Your task to perform on an android device: Add "bose soundsport free" to the cart on bestbuy, then select checkout. Image 0: 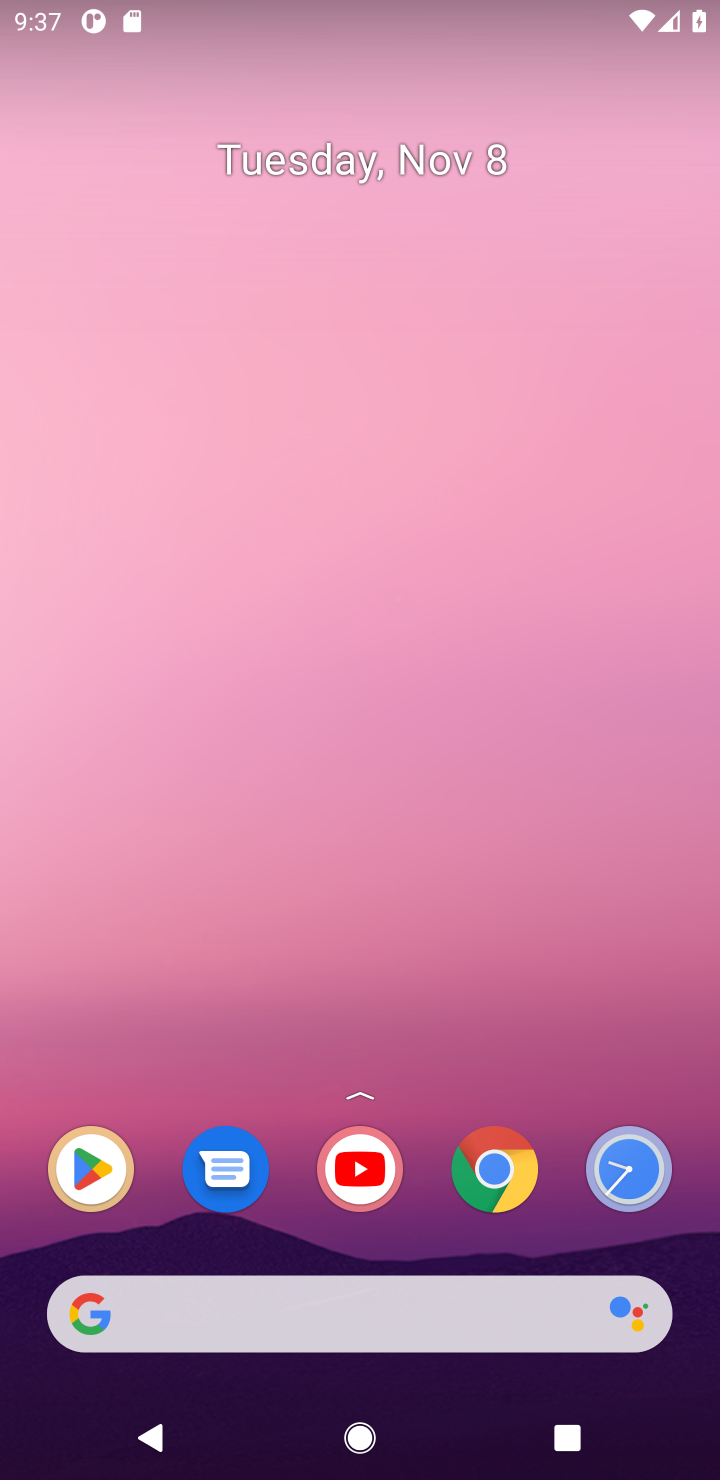
Step 0: click (499, 1153)
Your task to perform on an android device: Add "bose soundsport free" to the cart on bestbuy, then select checkout. Image 1: 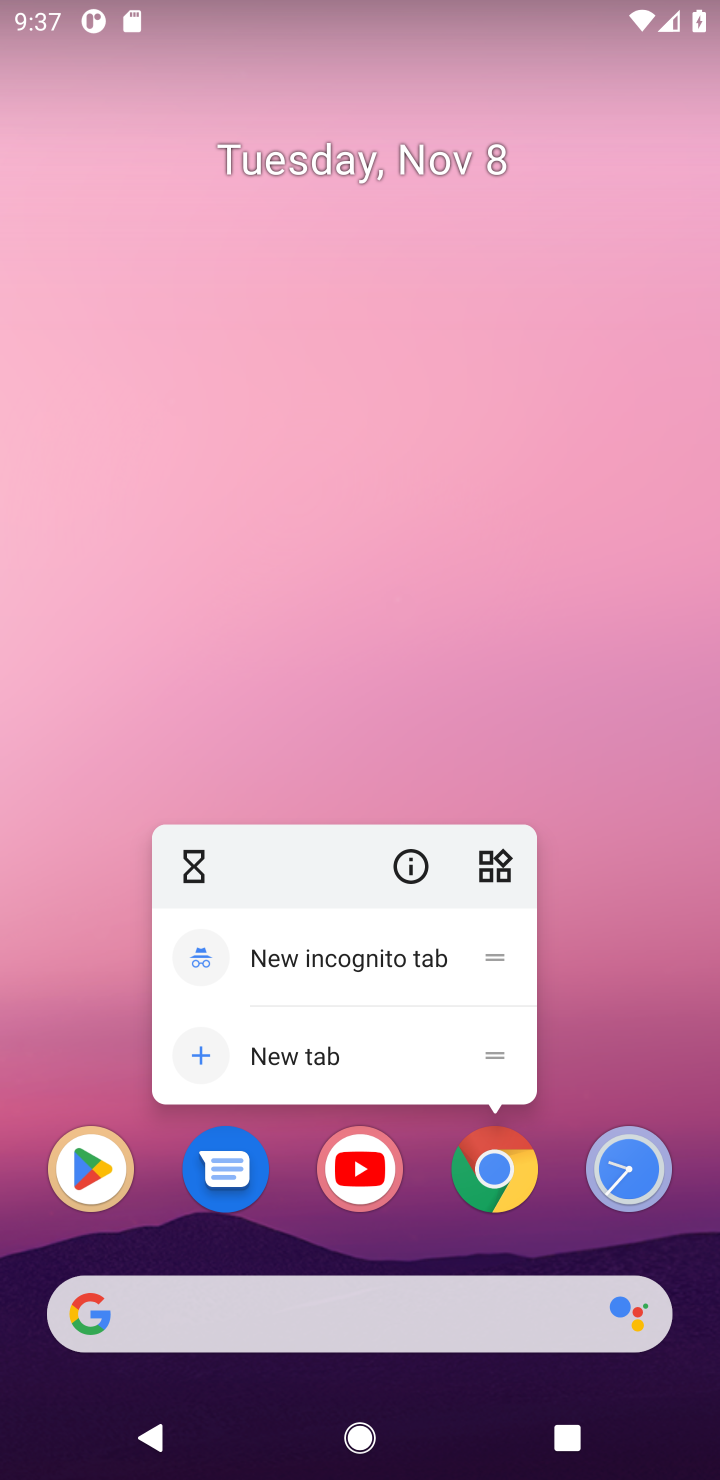
Step 1: click (499, 1153)
Your task to perform on an android device: Add "bose soundsport free" to the cart on bestbuy, then select checkout. Image 2: 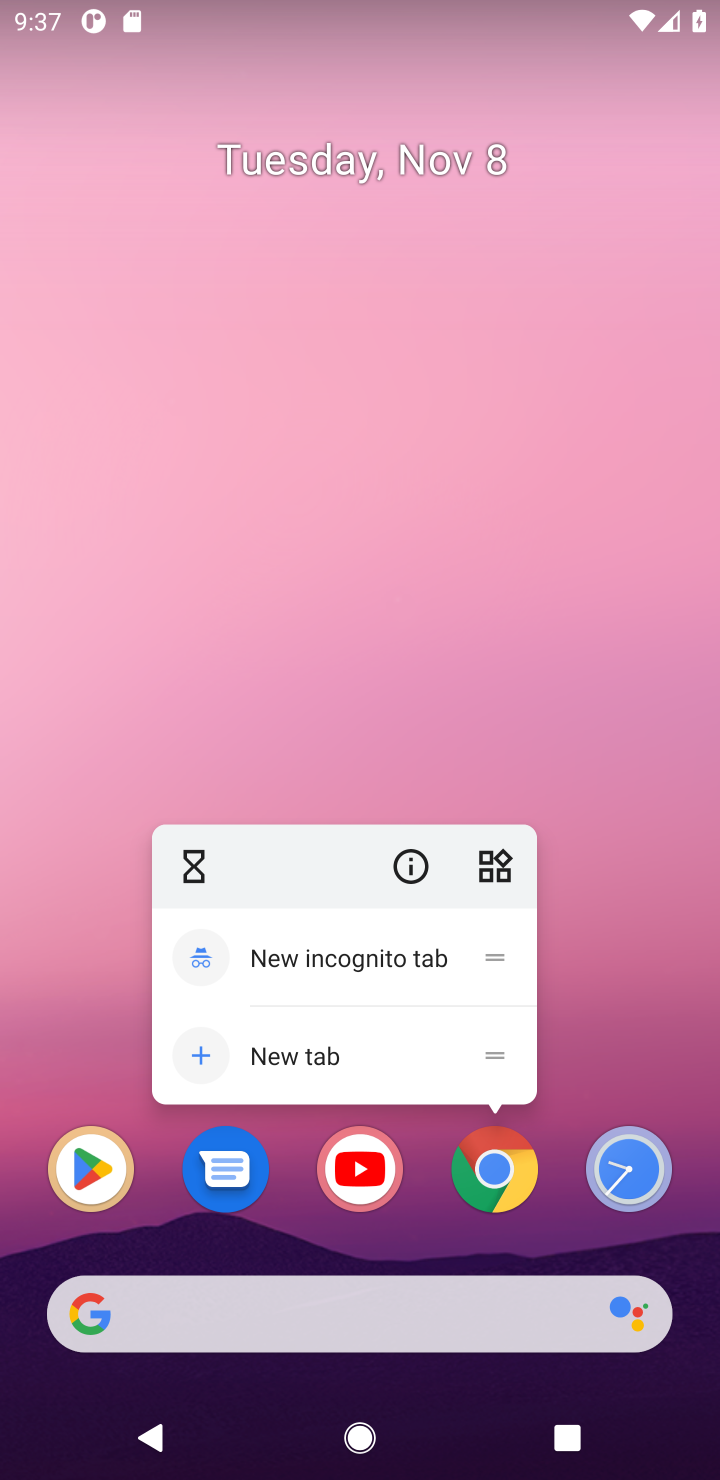
Step 2: click (499, 1153)
Your task to perform on an android device: Add "bose soundsport free" to the cart on bestbuy, then select checkout. Image 3: 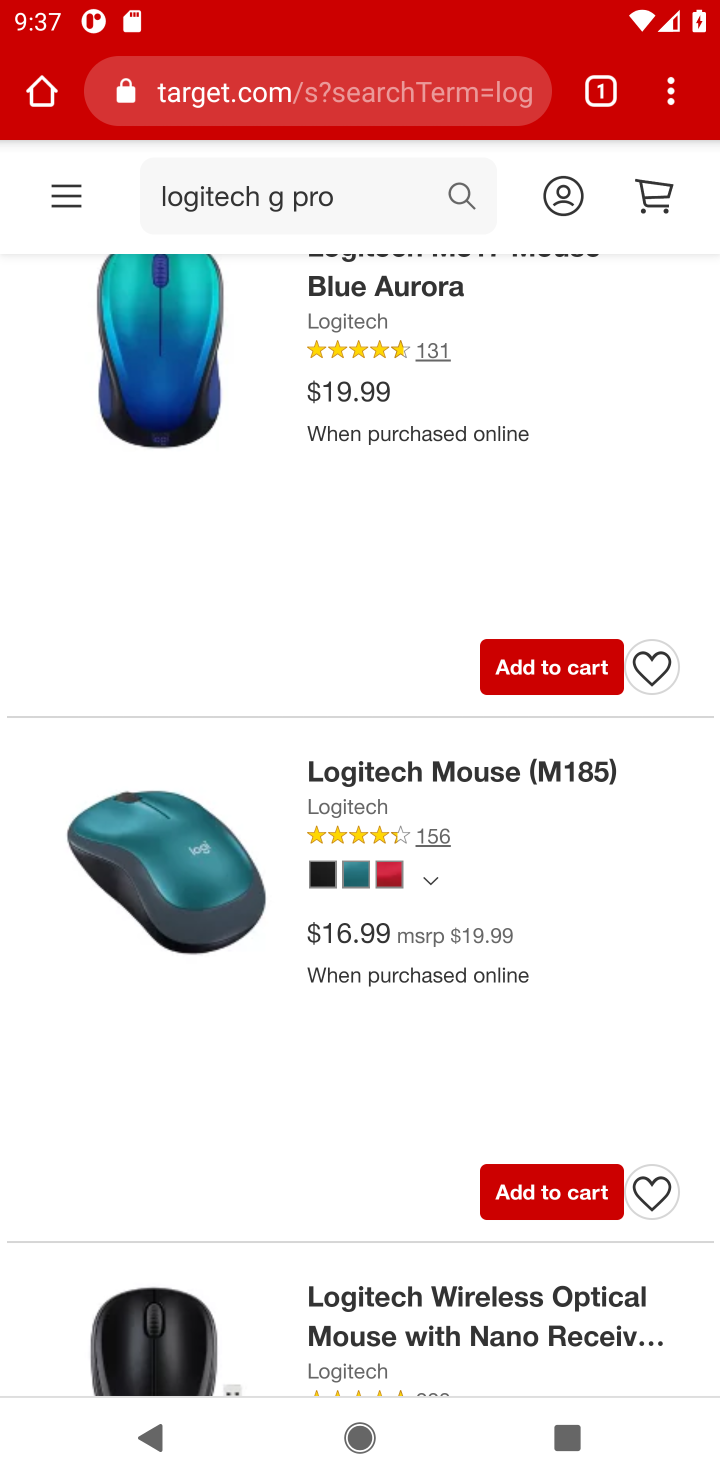
Step 3: click (396, 80)
Your task to perform on an android device: Add "bose soundsport free" to the cart on bestbuy, then select checkout. Image 4: 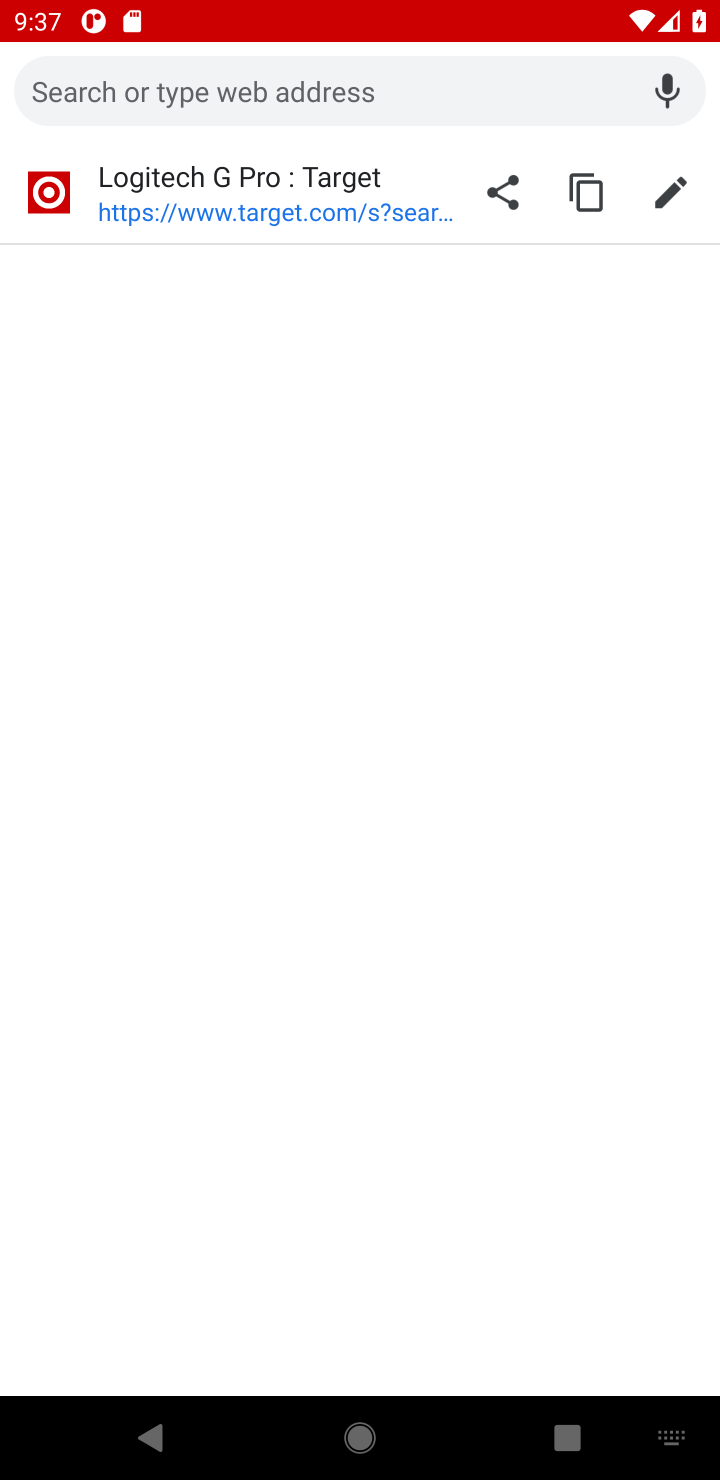
Step 4: press enter
Your task to perform on an android device: Add "bose soundsport free" to the cart on bestbuy, then select checkout. Image 5: 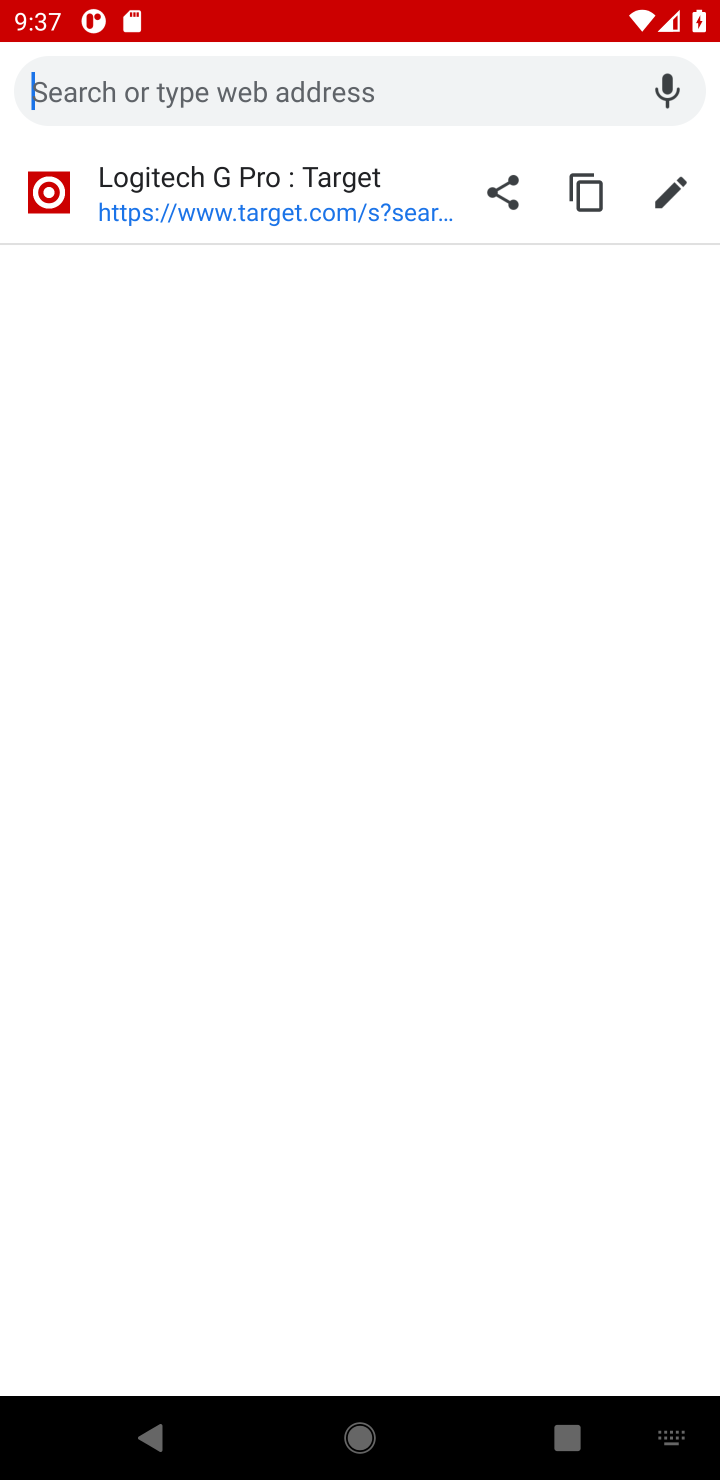
Step 5: type "bestbuy"
Your task to perform on an android device: Add "bose soundsport free" to the cart on bestbuy, then select checkout. Image 6: 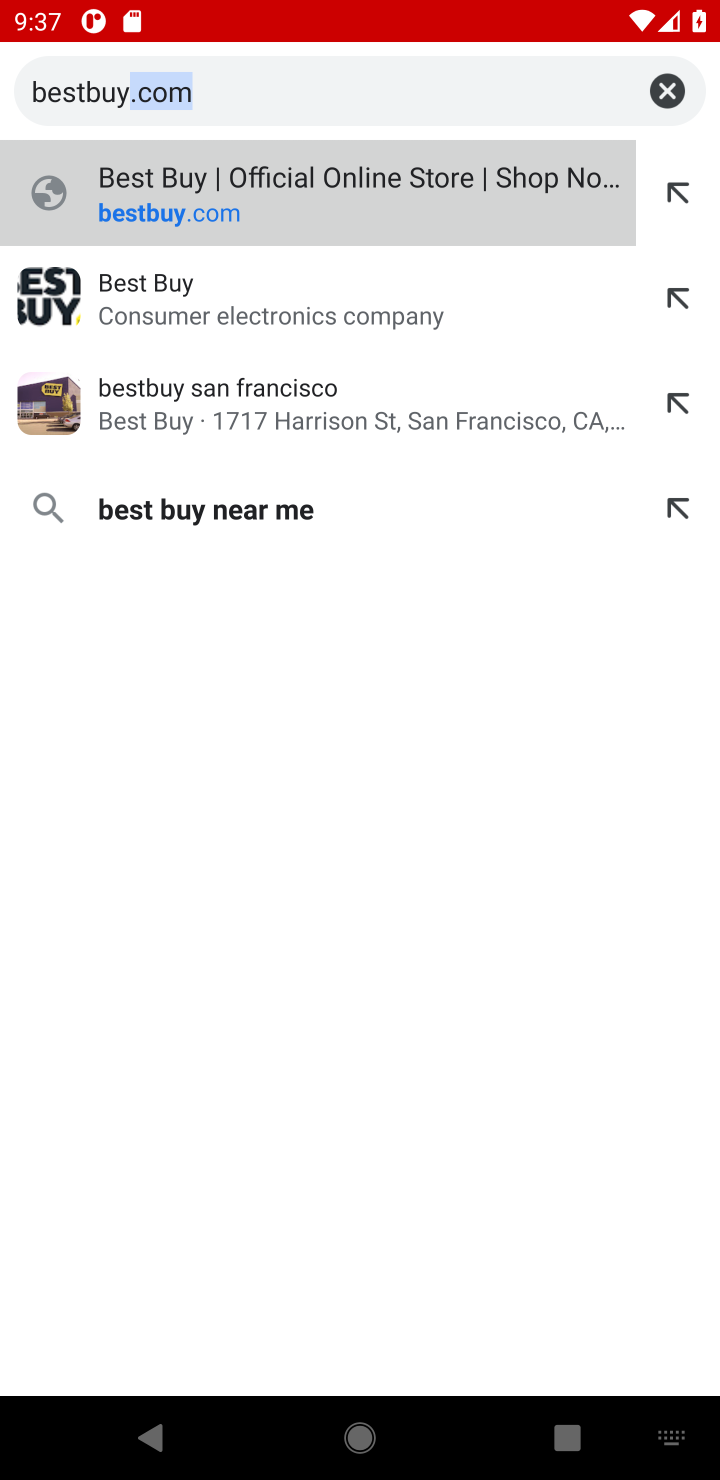
Step 6: click (498, 84)
Your task to perform on an android device: Add "bose soundsport free" to the cart on bestbuy, then select checkout. Image 7: 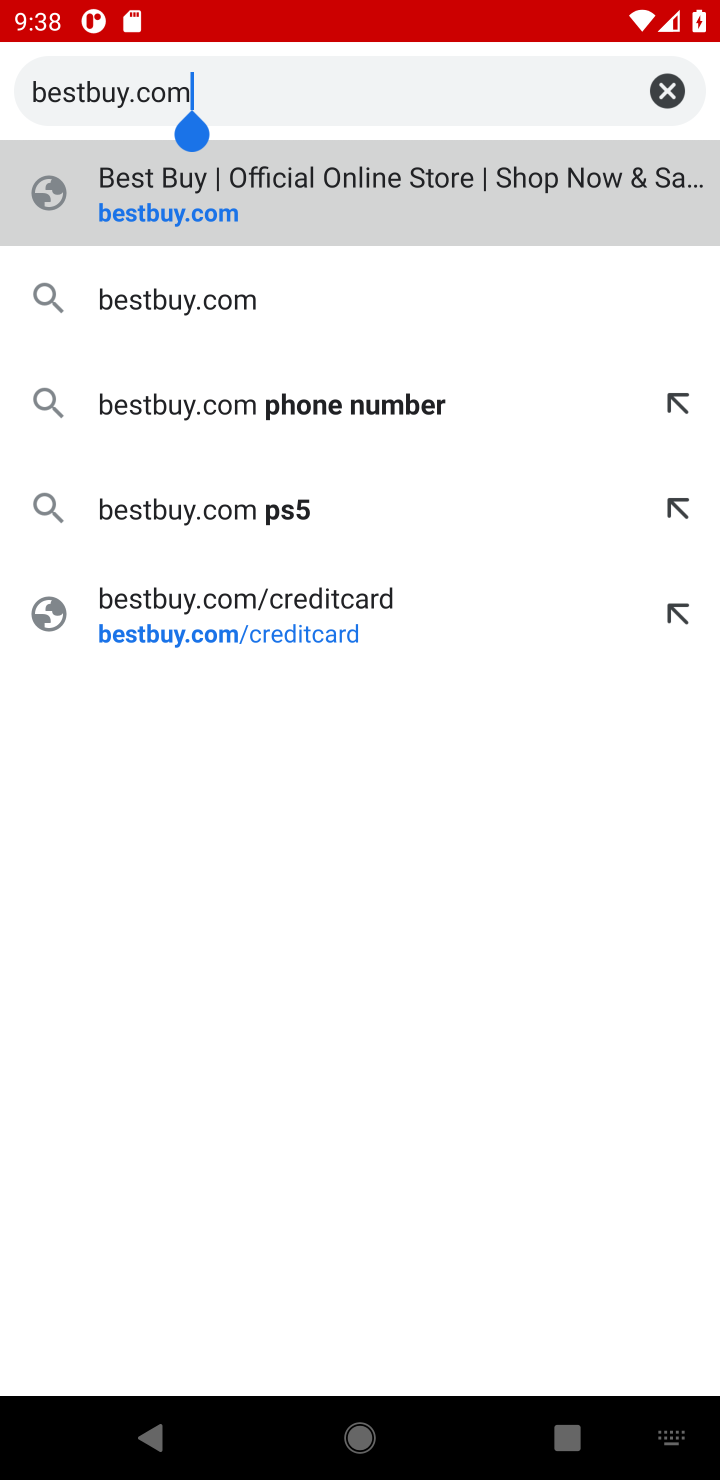
Step 7: click (179, 301)
Your task to perform on an android device: Add "bose soundsport free" to the cart on bestbuy, then select checkout. Image 8: 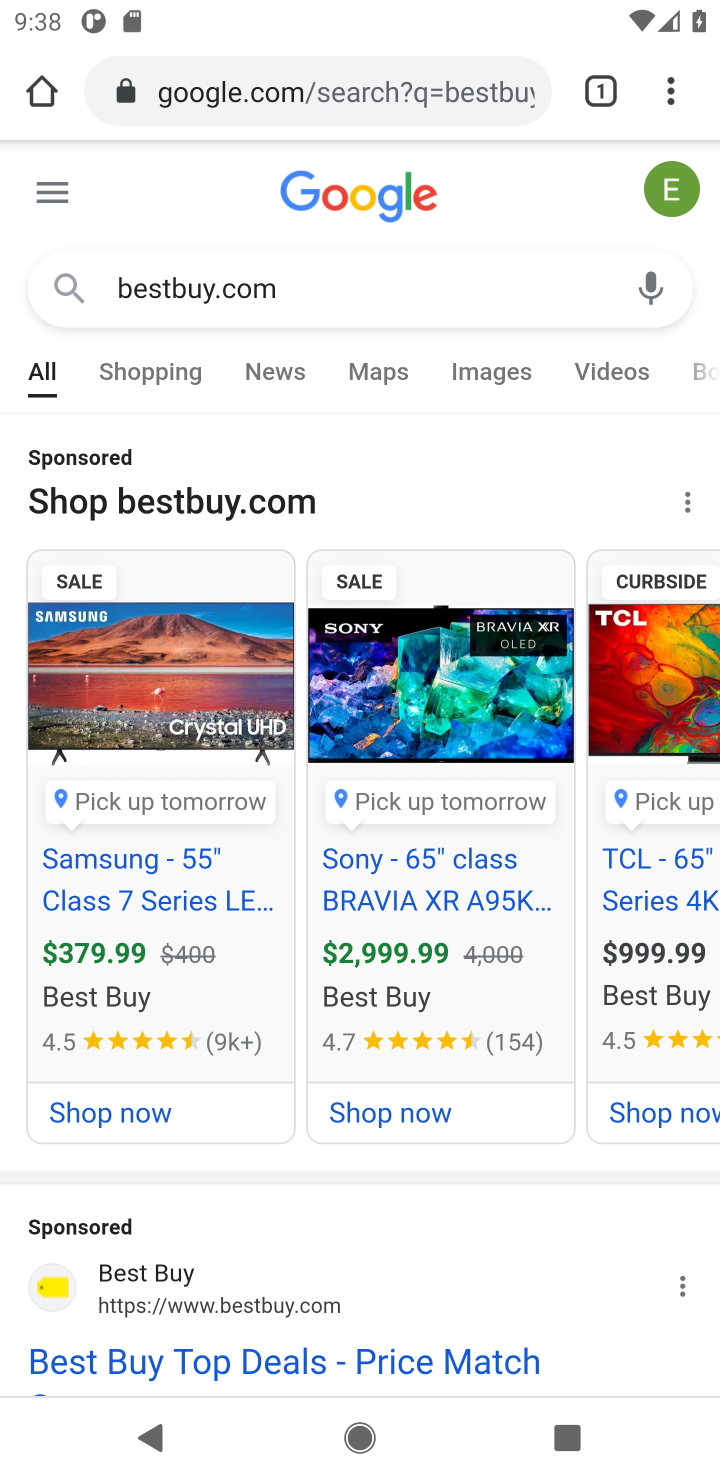
Step 8: click (298, 1308)
Your task to perform on an android device: Add "bose soundsport free" to the cart on bestbuy, then select checkout. Image 9: 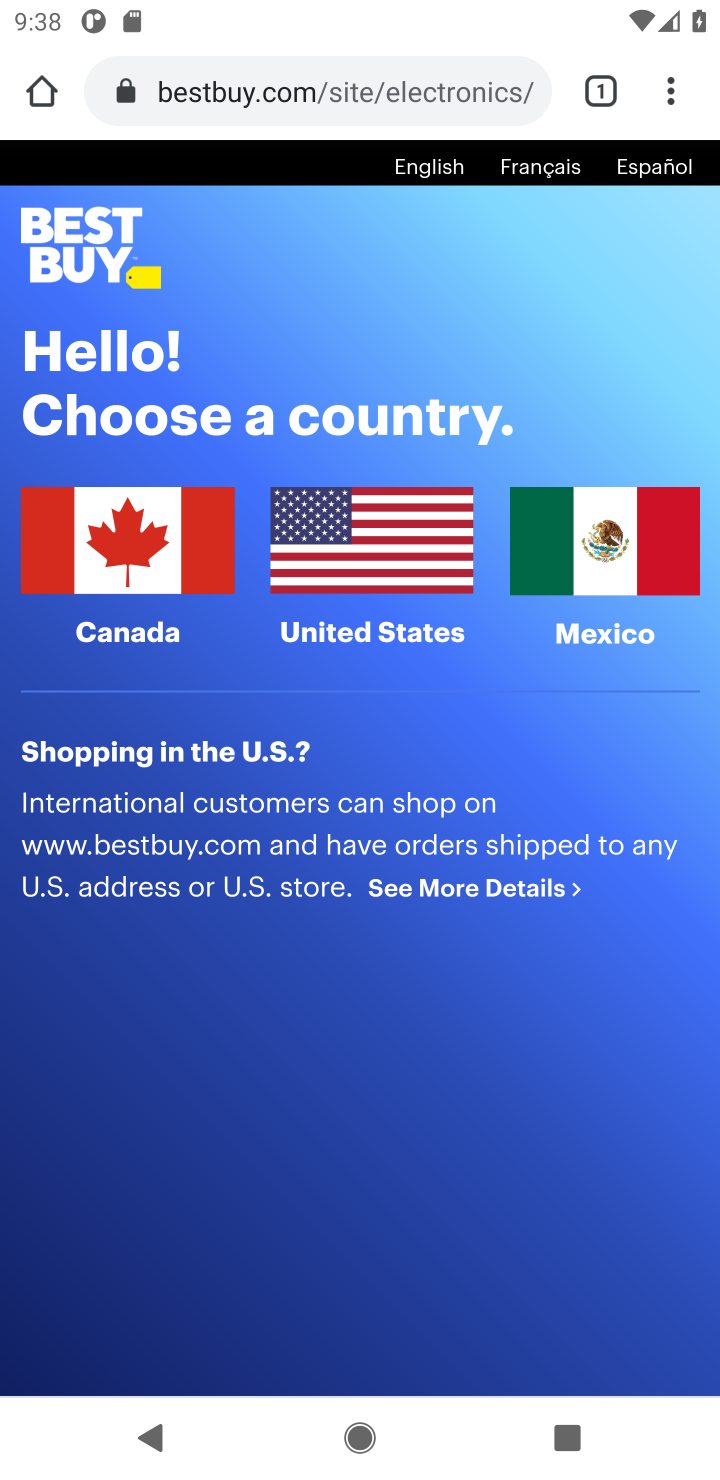
Step 9: click (374, 523)
Your task to perform on an android device: Add "bose soundsport free" to the cart on bestbuy, then select checkout. Image 10: 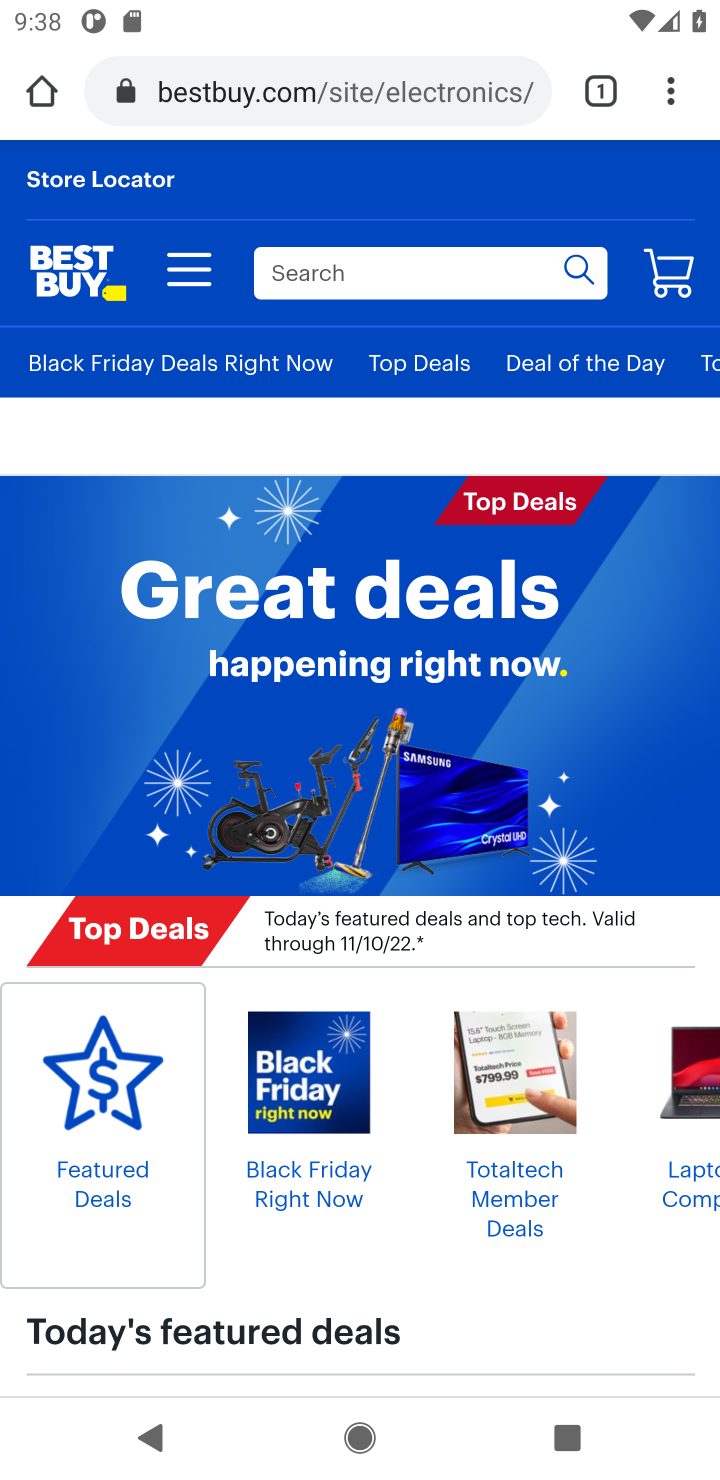
Step 10: click (467, 270)
Your task to perform on an android device: Add "bose soundsport free" to the cart on bestbuy, then select checkout. Image 11: 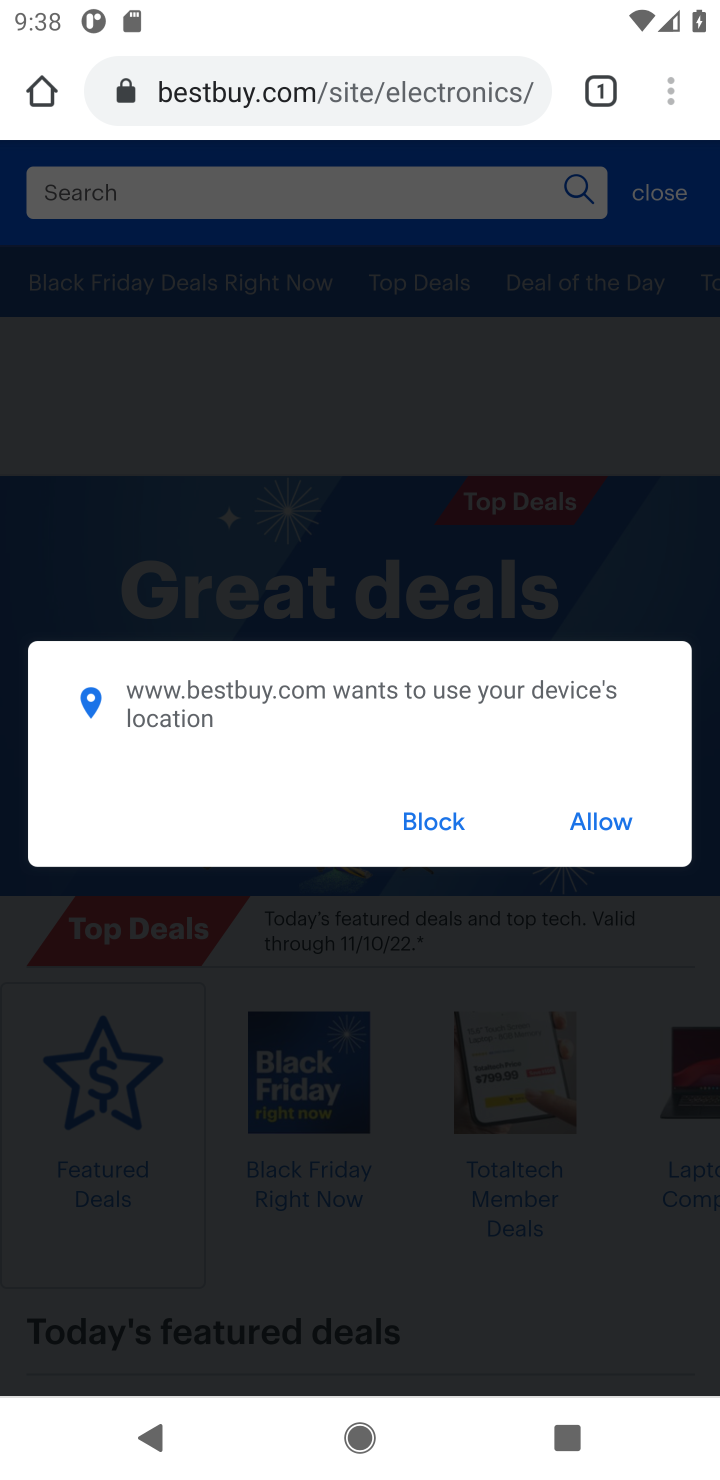
Step 11: type "bose soundsport free"
Your task to perform on an android device: Add "bose soundsport free" to the cart on bestbuy, then select checkout. Image 12: 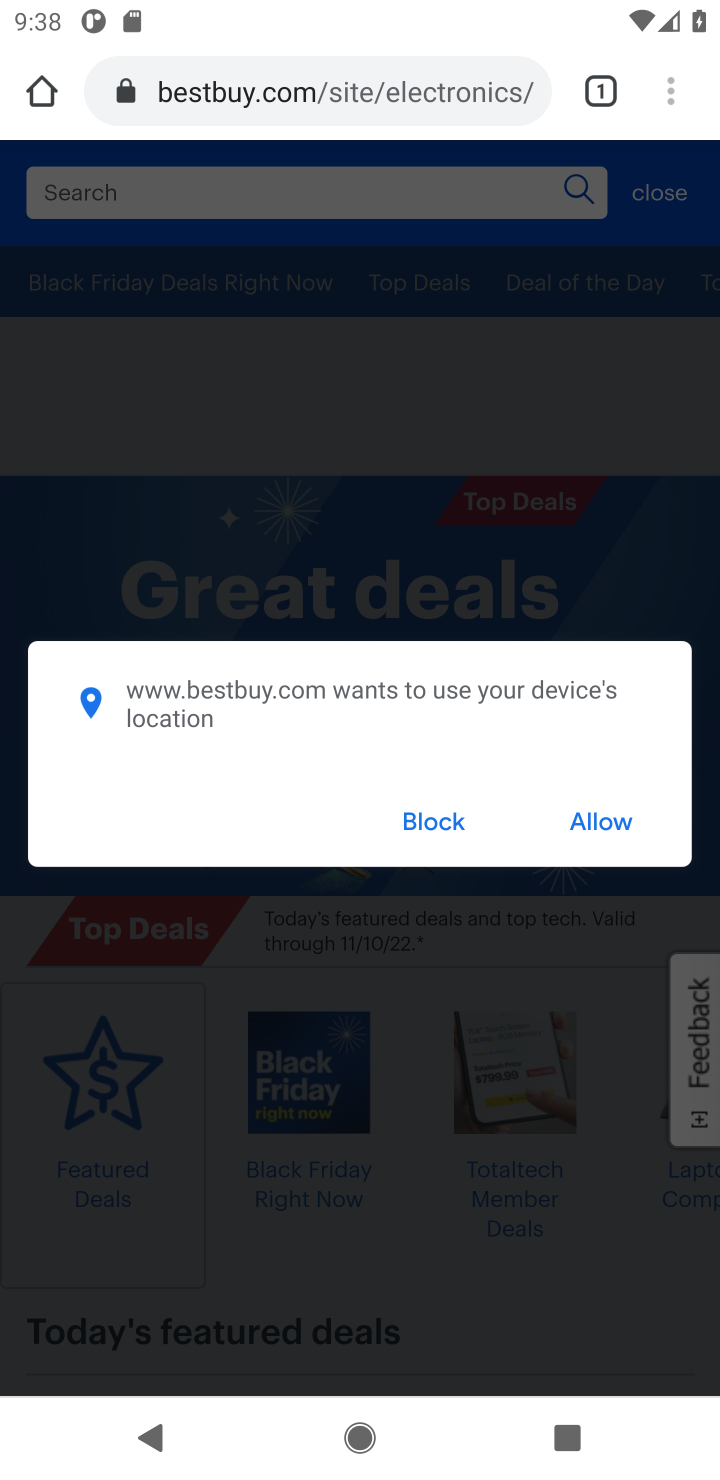
Step 12: press enter
Your task to perform on an android device: Add "bose soundsport free" to the cart on bestbuy, then select checkout. Image 13: 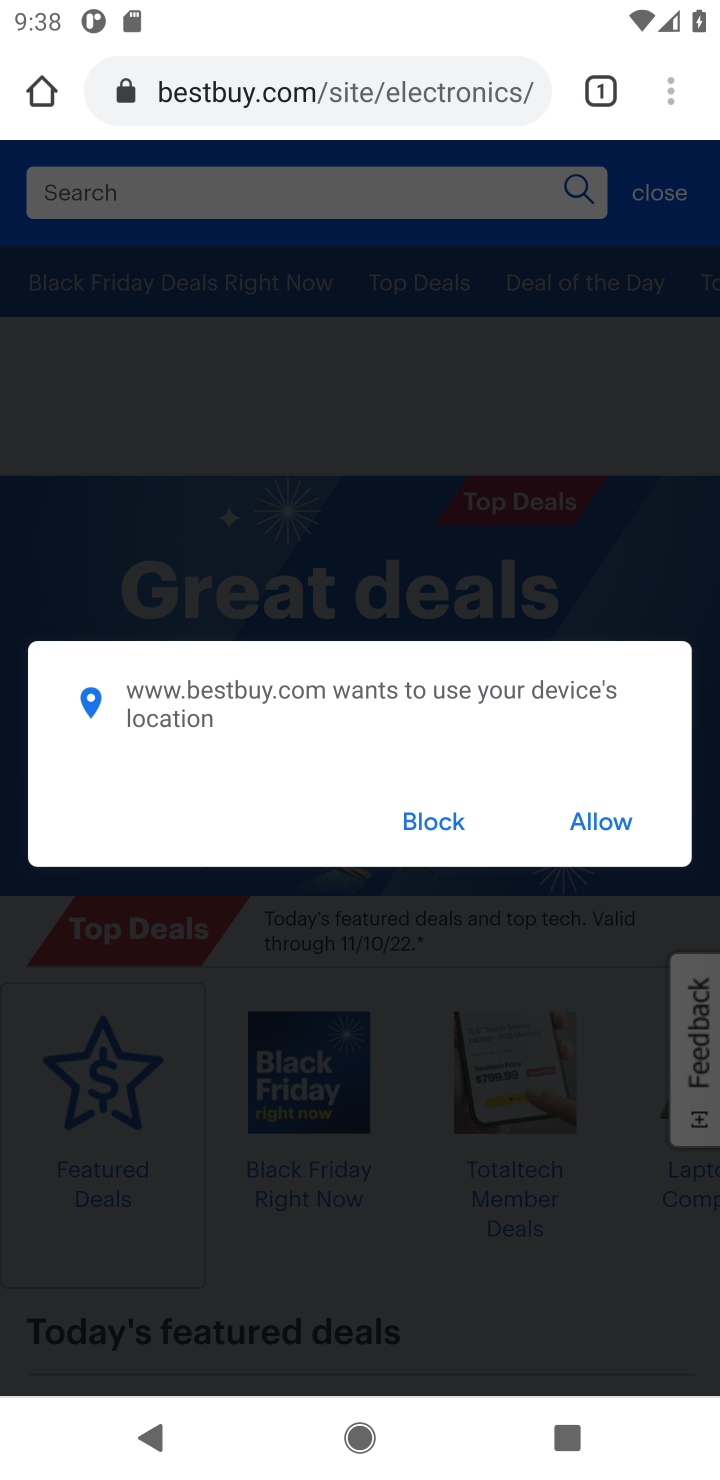
Step 13: click (436, 813)
Your task to perform on an android device: Add "bose soundsport free" to the cart on bestbuy, then select checkout. Image 14: 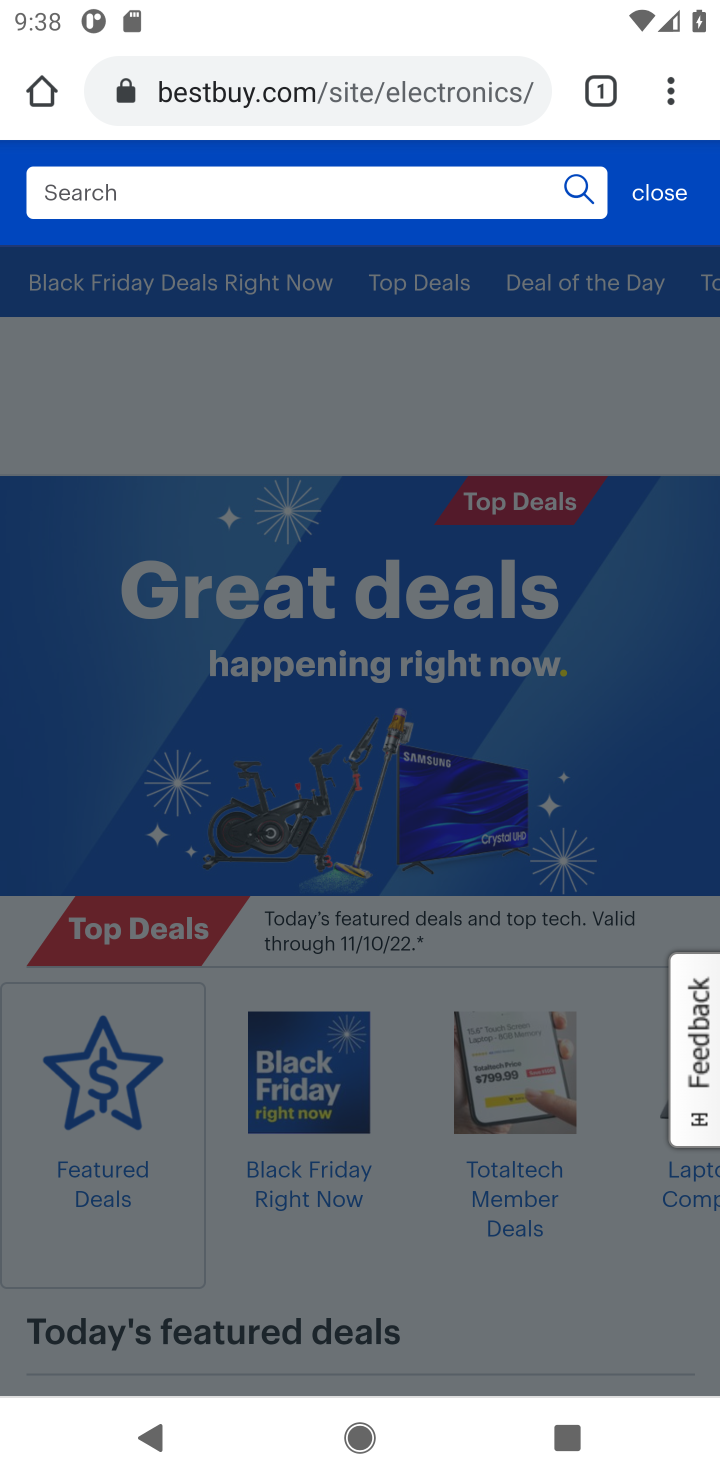
Step 14: click (361, 187)
Your task to perform on an android device: Add "bose soundsport free" to the cart on bestbuy, then select checkout. Image 15: 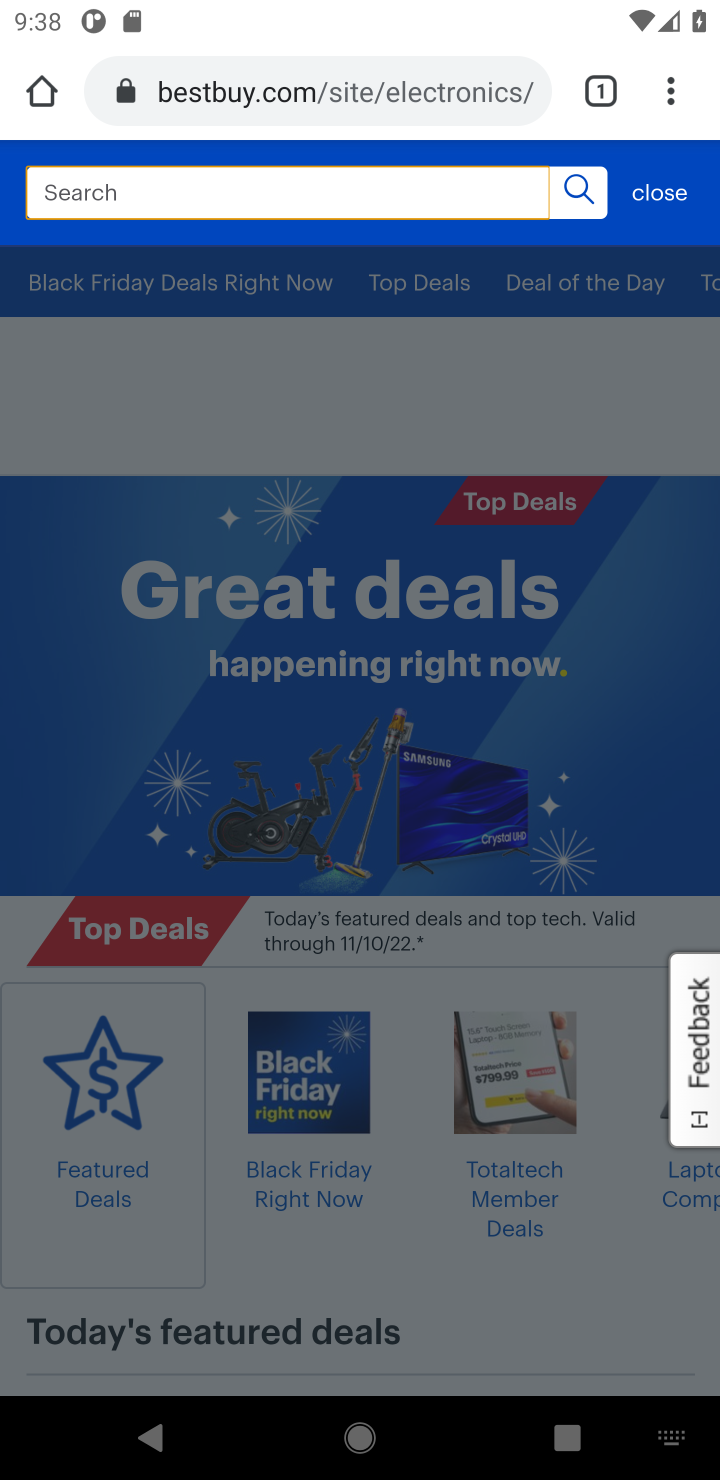
Step 15: press enter
Your task to perform on an android device: Add "bose soundsport free" to the cart on bestbuy, then select checkout. Image 16: 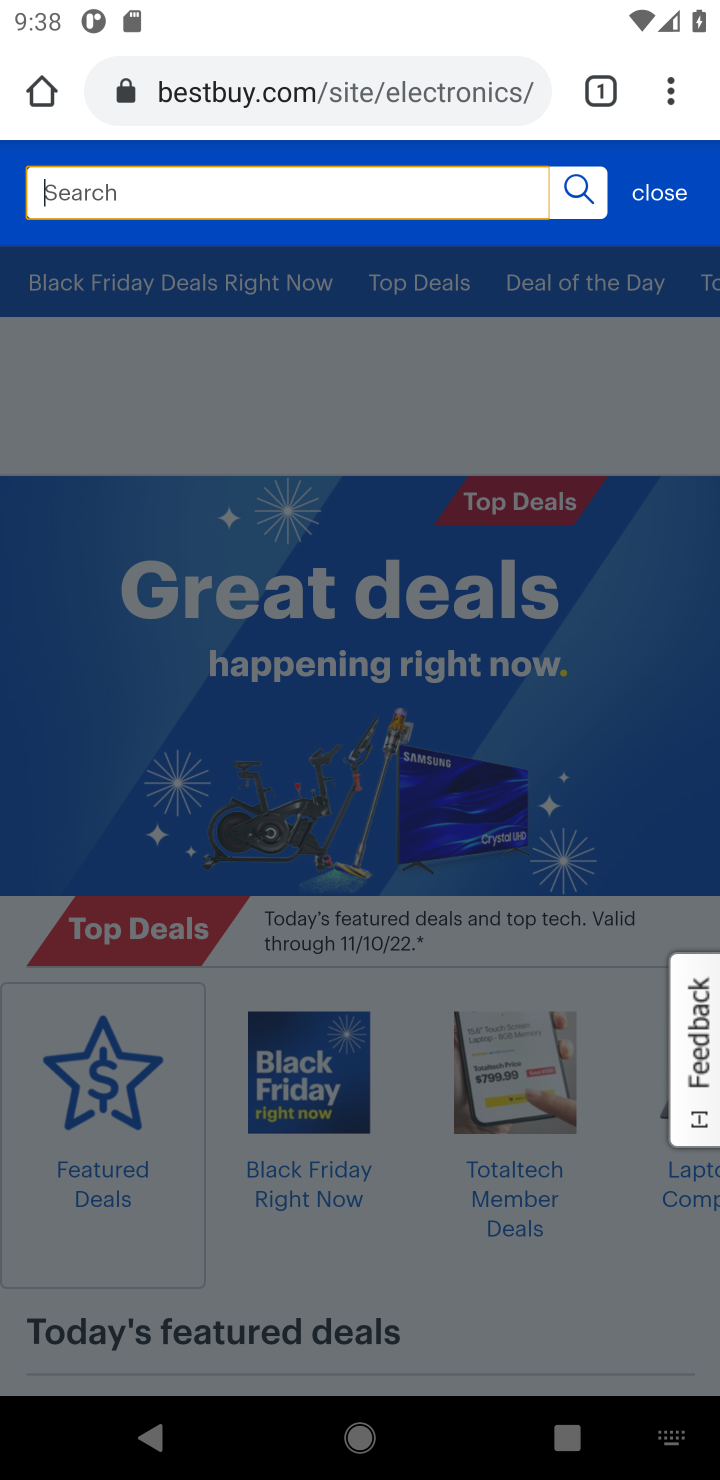
Step 16: type "bose soundsport free"
Your task to perform on an android device: Add "bose soundsport free" to the cart on bestbuy, then select checkout. Image 17: 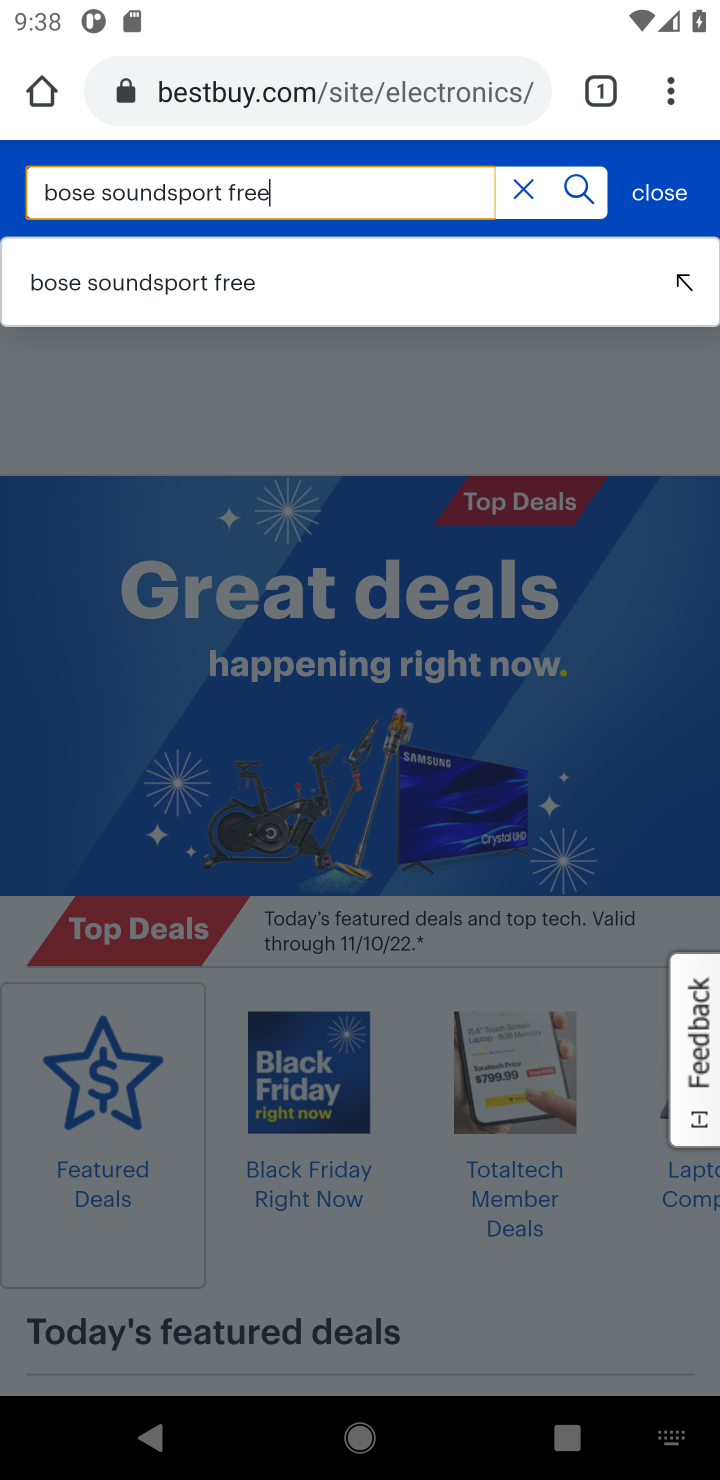
Step 17: click (177, 271)
Your task to perform on an android device: Add "bose soundsport free" to the cart on bestbuy, then select checkout. Image 18: 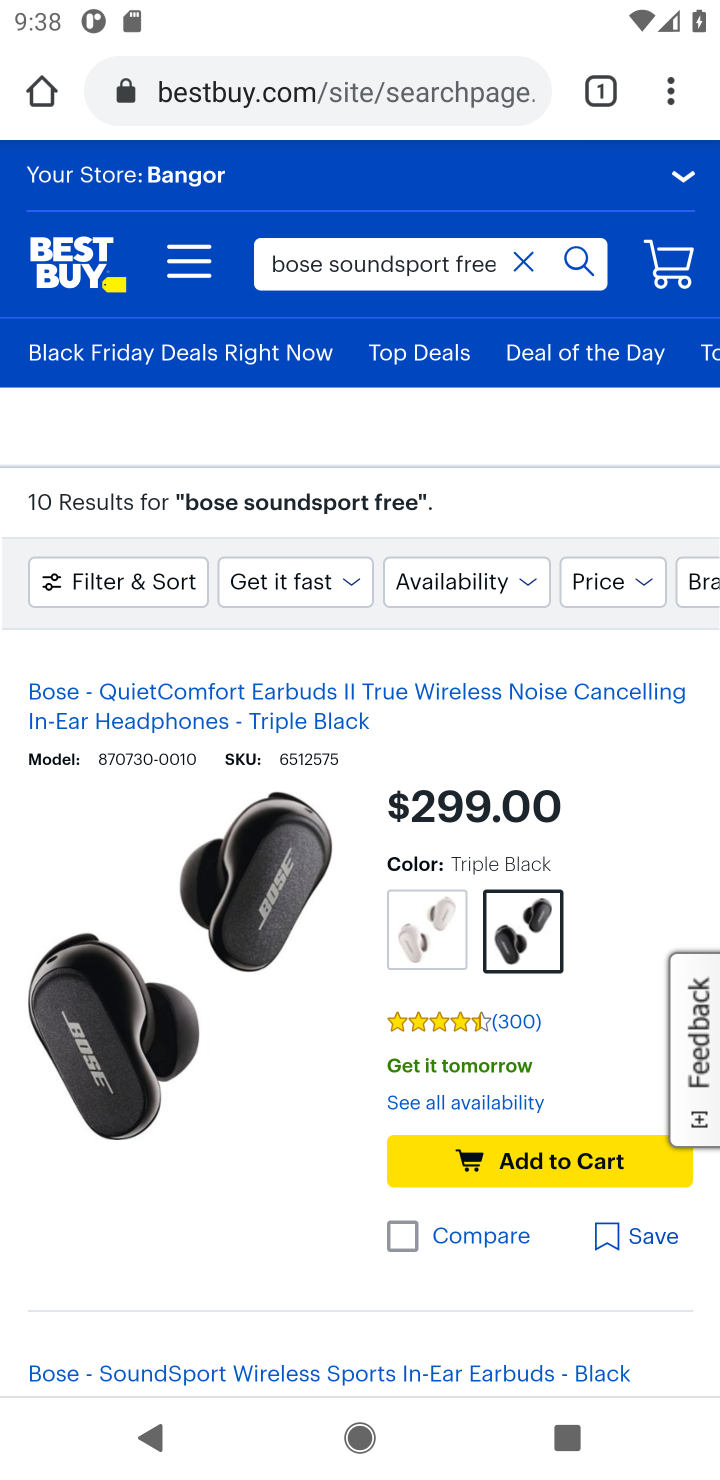
Step 18: drag from (232, 1134) to (429, 352)
Your task to perform on an android device: Add "bose soundsport free" to the cart on bestbuy, then select checkout. Image 19: 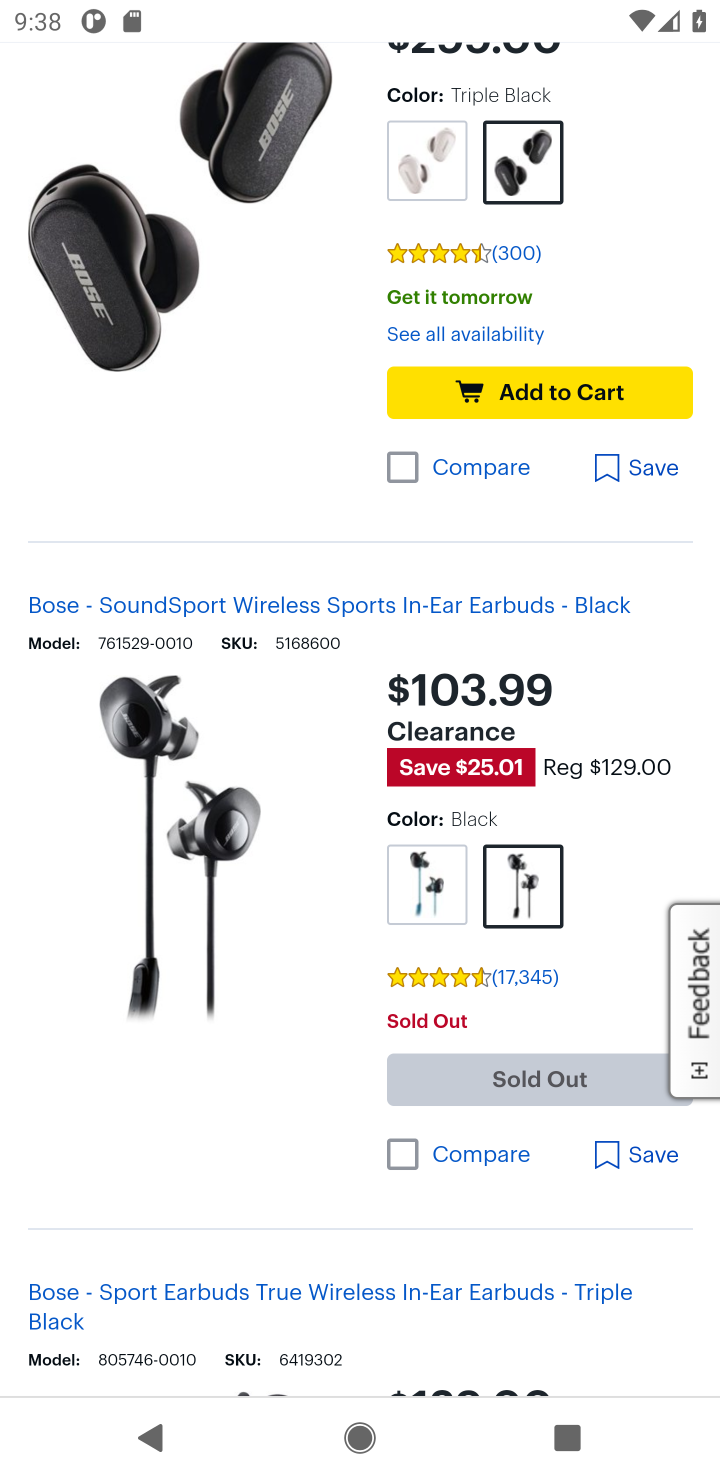
Step 19: drag from (295, 1050) to (449, 274)
Your task to perform on an android device: Add "bose soundsport free" to the cart on bestbuy, then select checkout. Image 20: 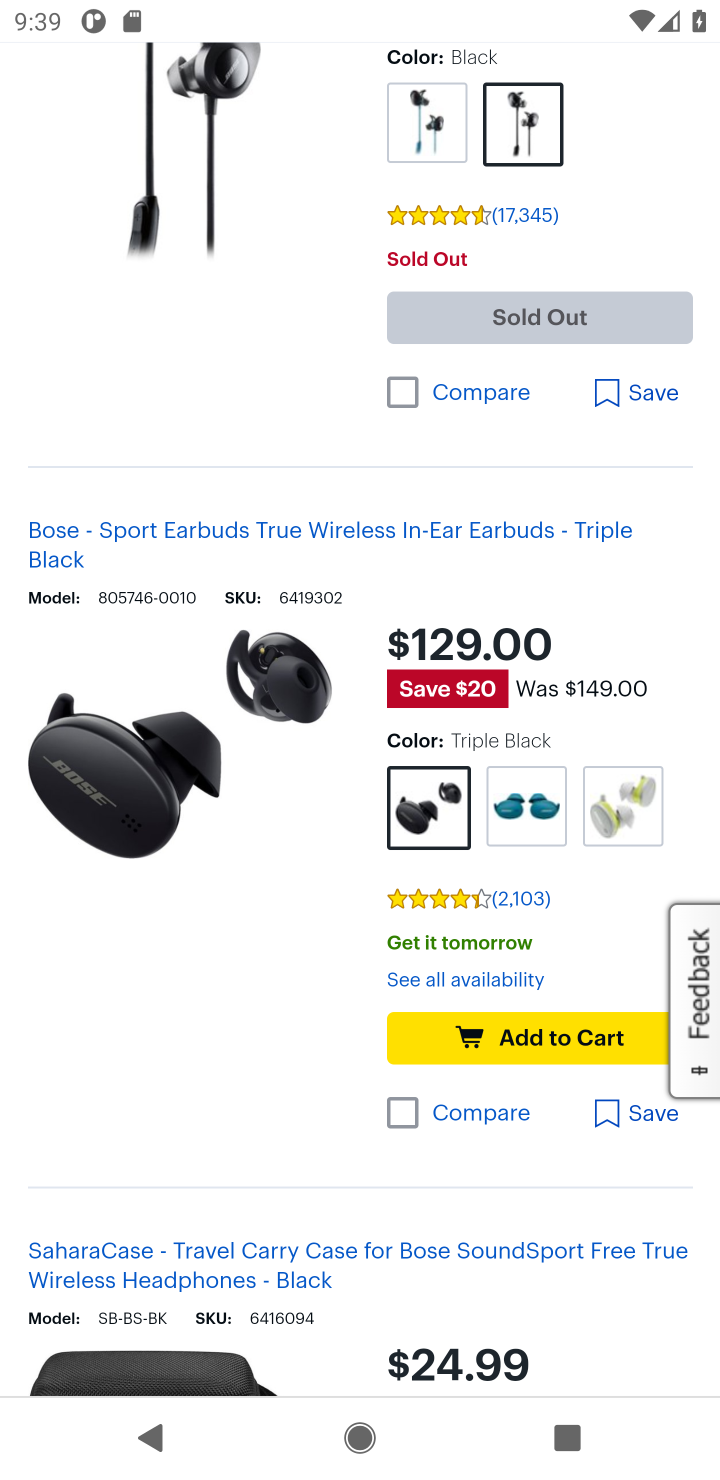
Step 20: drag from (609, 1322) to (612, 970)
Your task to perform on an android device: Add "bose soundsport free" to the cart on bestbuy, then select checkout. Image 21: 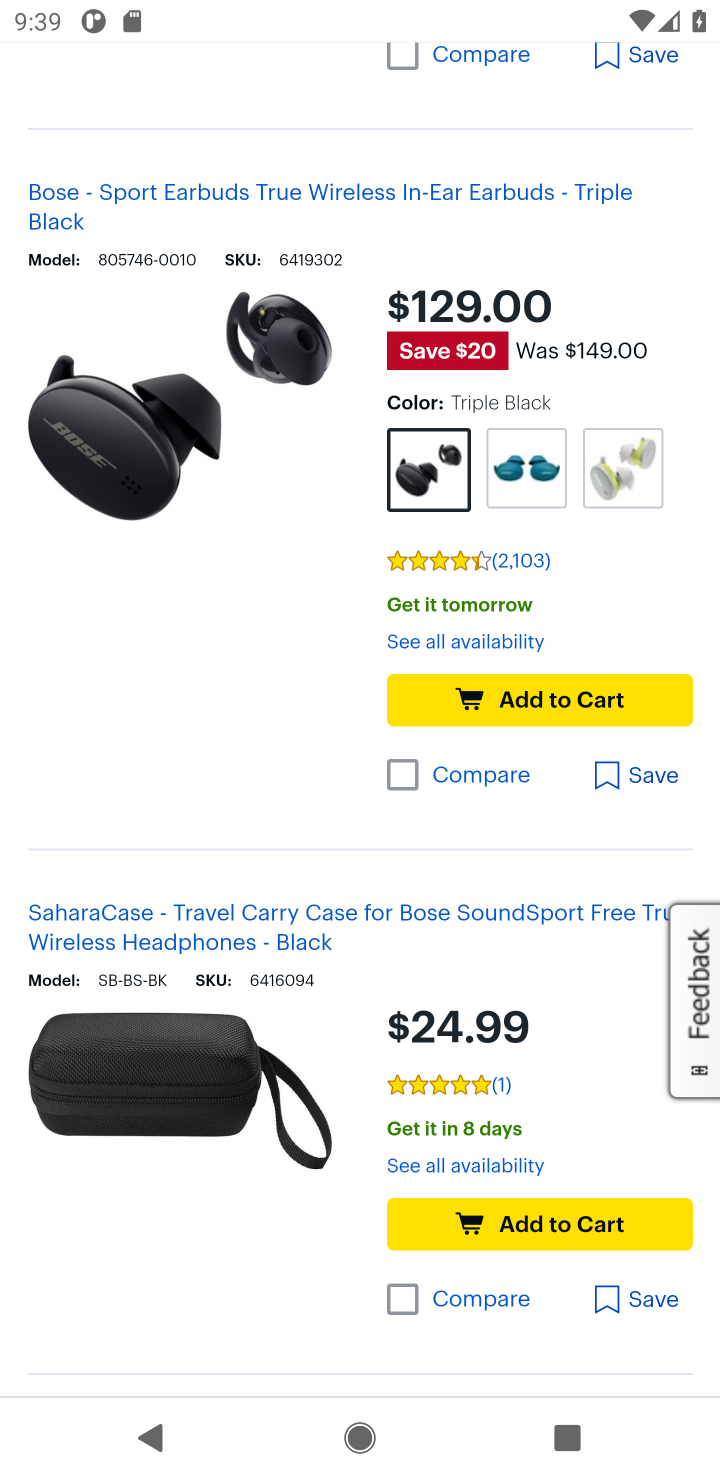
Step 21: click (129, 1077)
Your task to perform on an android device: Add "bose soundsport free" to the cart on bestbuy, then select checkout. Image 22: 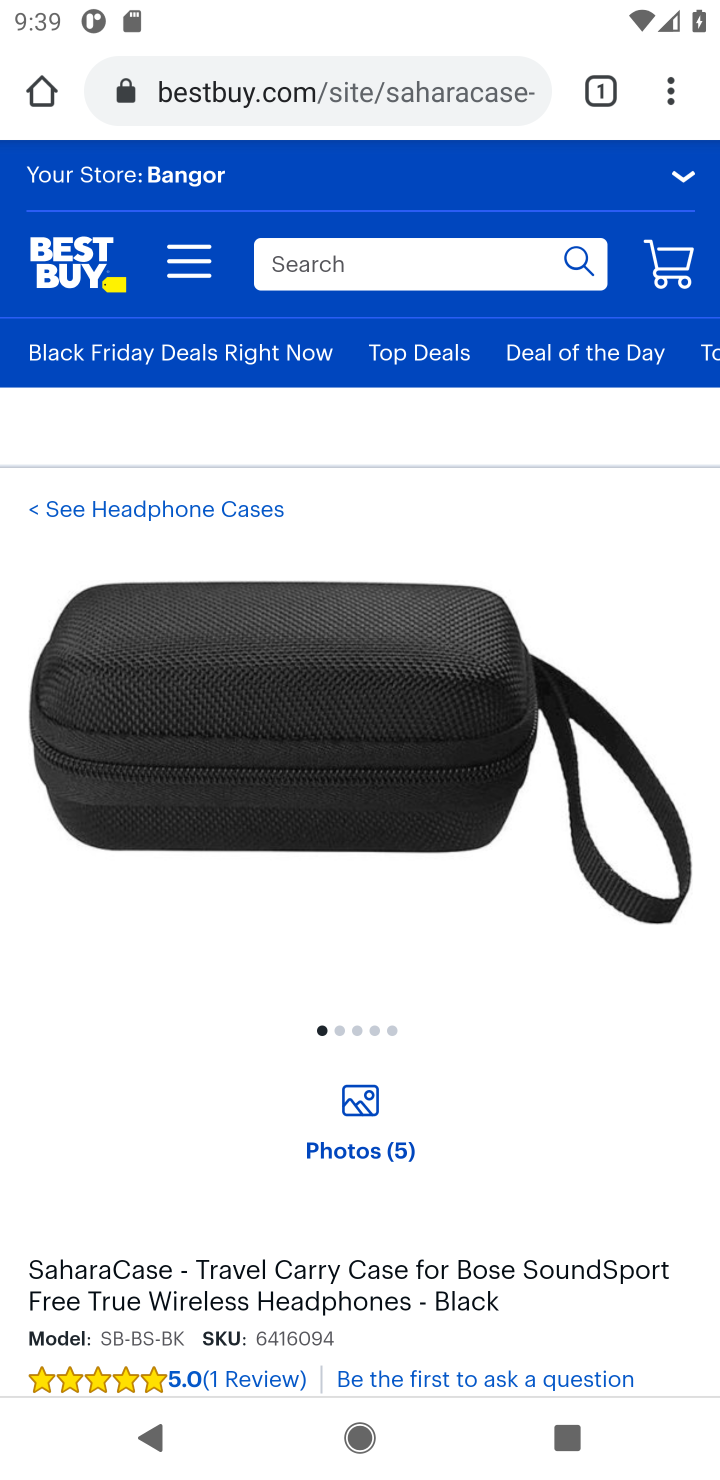
Step 22: drag from (611, 1014) to (645, 493)
Your task to perform on an android device: Add "bose soundsport free" to the cart on bestbuy, then select checkout. Image 23: 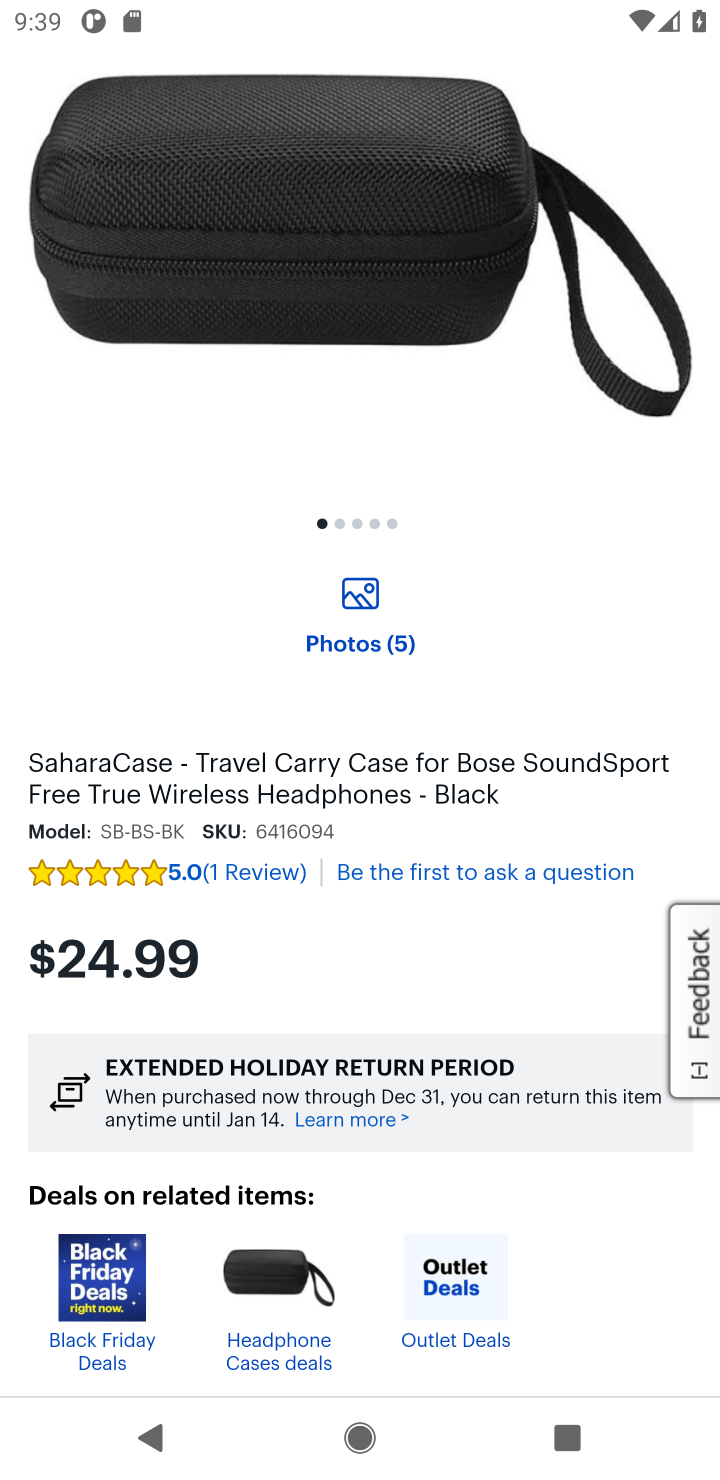
Step 23: drag from (605, 1291) to (544, 618)
Your task to perform on an android device: Add "bose soundsport free" to the cart on bestbuy, then select checkout. Image 24: 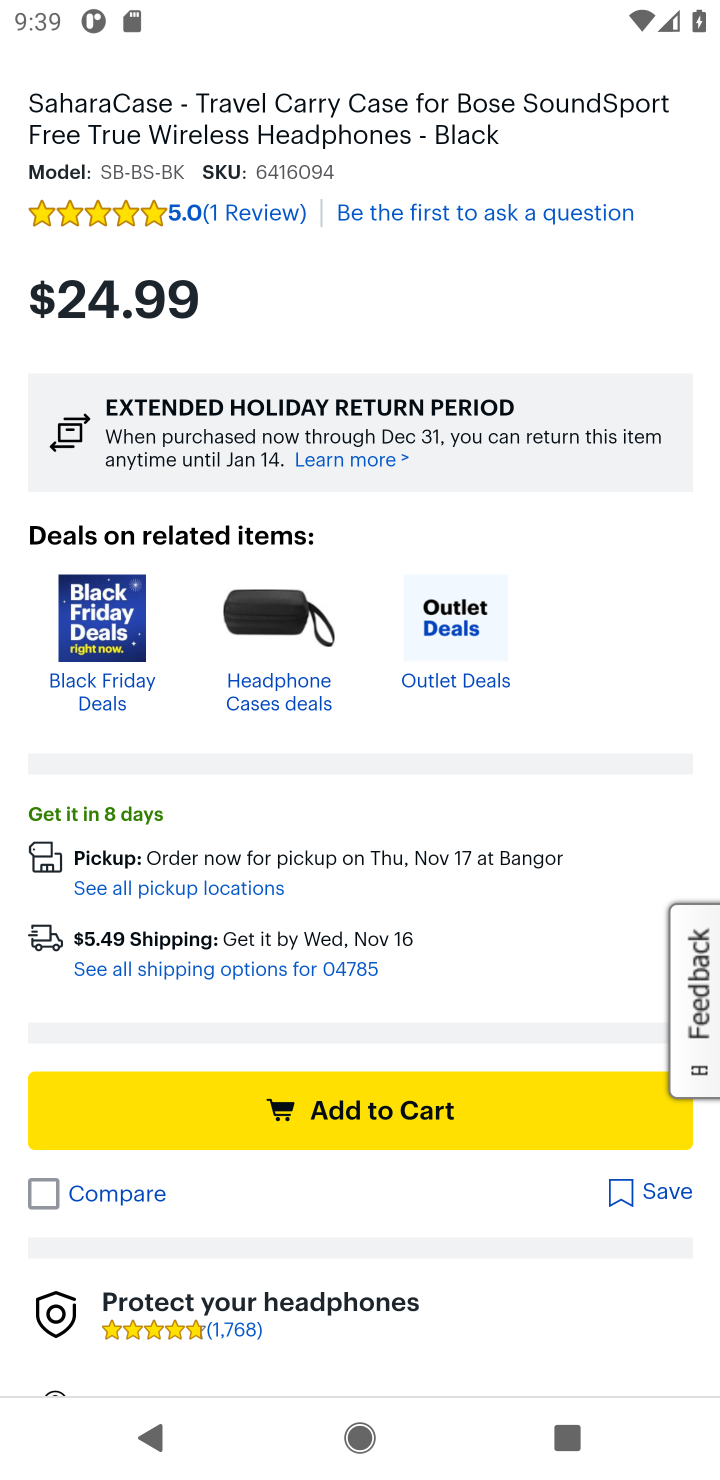
Step 24: click (432, 1106)
Your task to perform on an android device: Add "bose soundsport free" to the cart on bestbuy, then select checkout. Image 25: 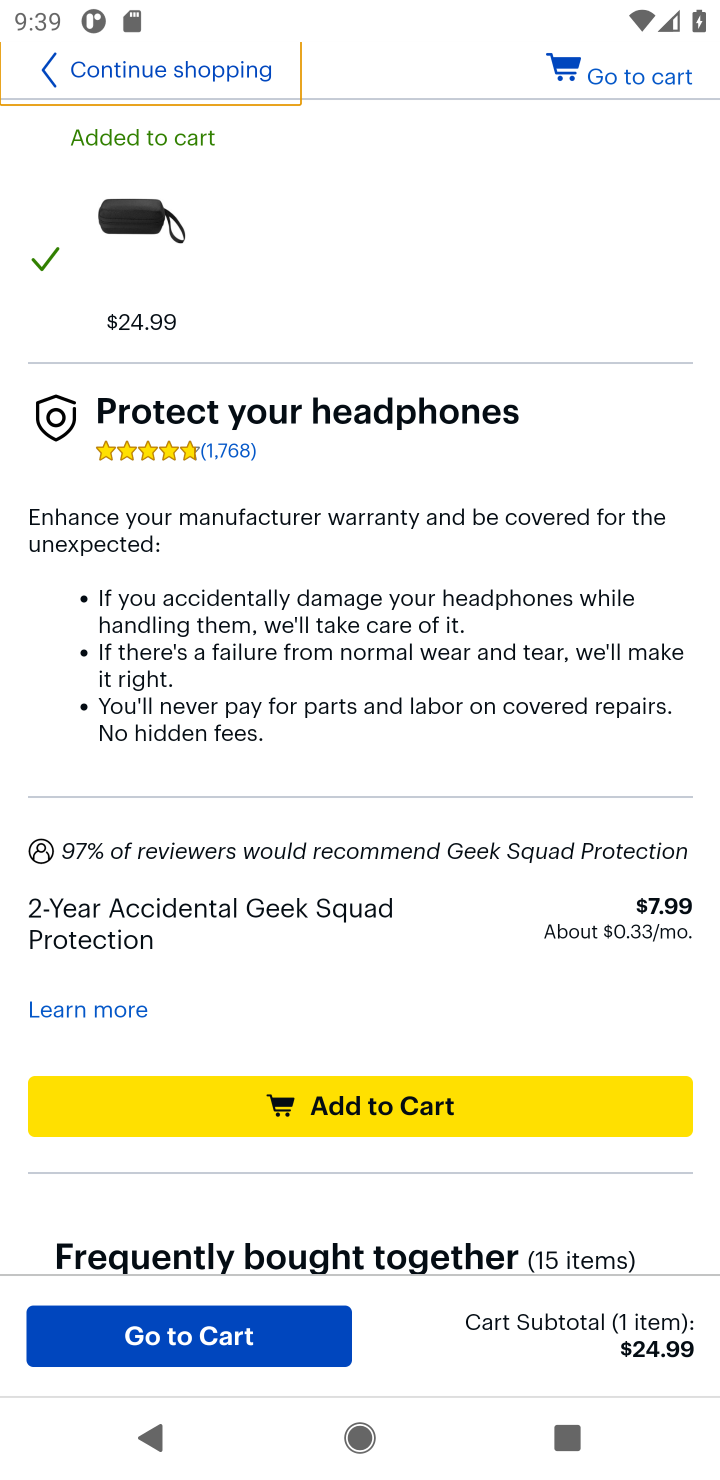
Step 25: click (177, 1330)
Your task to perform on an android device: Add "bose soundsport free" to the cart on bestbuy, then select checkout. Image 26: 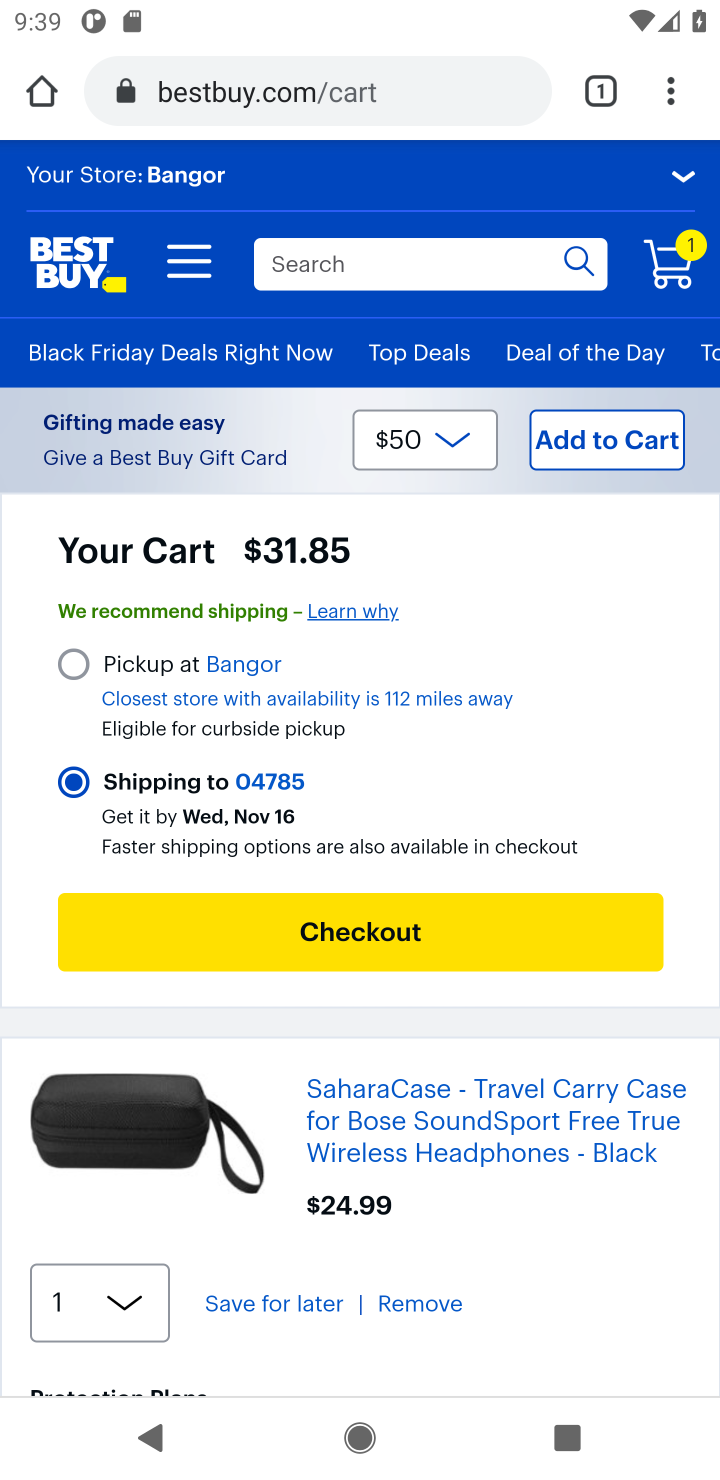
Step 26: click (481, 929)
Your task to perform on an android device: Add "bose soundsport free" to the cart on bestbuy, then select checkout. Image 27: 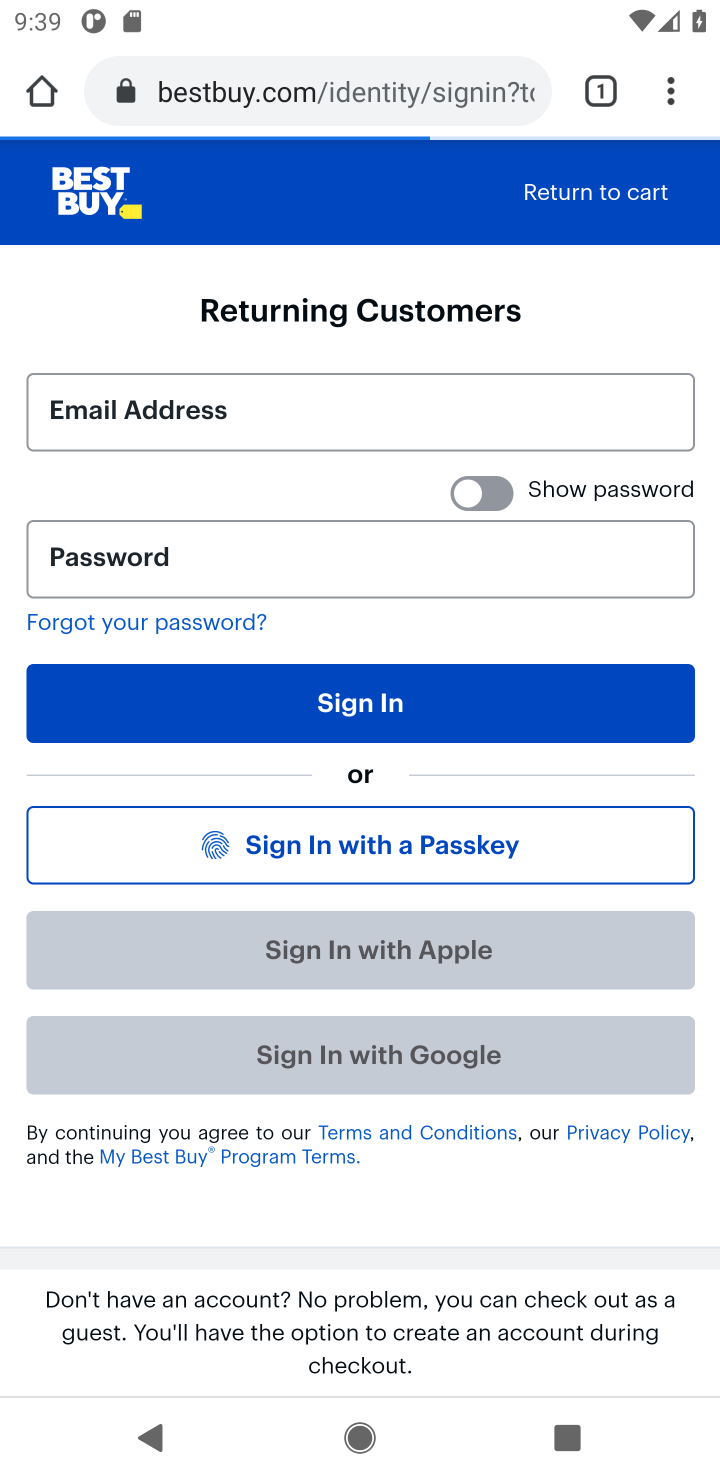
Step 27: task complete